Your task to perform on an android device: open sync settings in chrome Image 0: 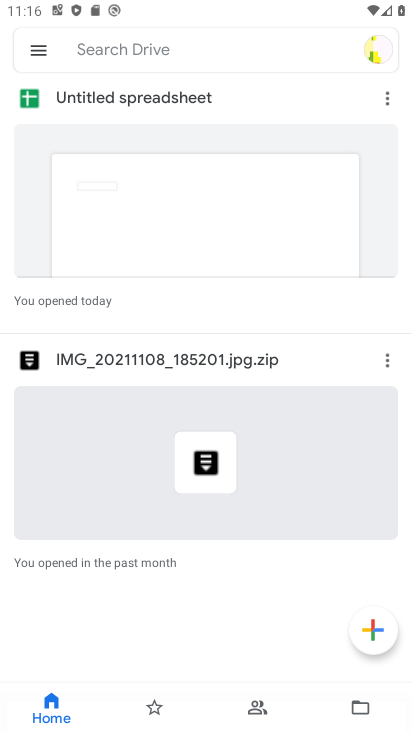
Step 0: press home button
Your task to perform on an android device: open sync settings in chrome Image 1: 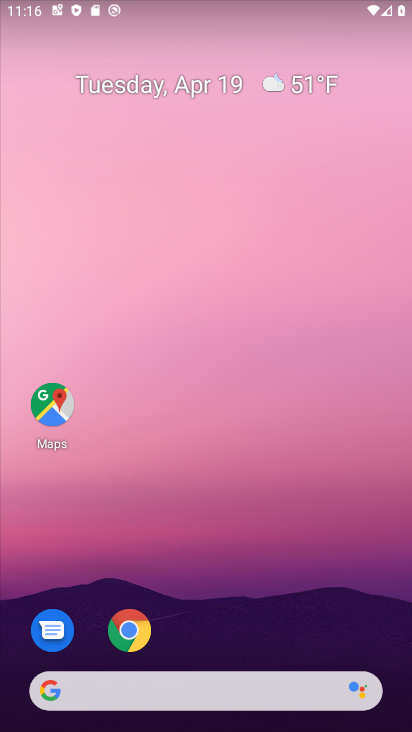
Step 1: click (123, 651)
Your task to perform on an android device: open sync settings in chrome Image 2: 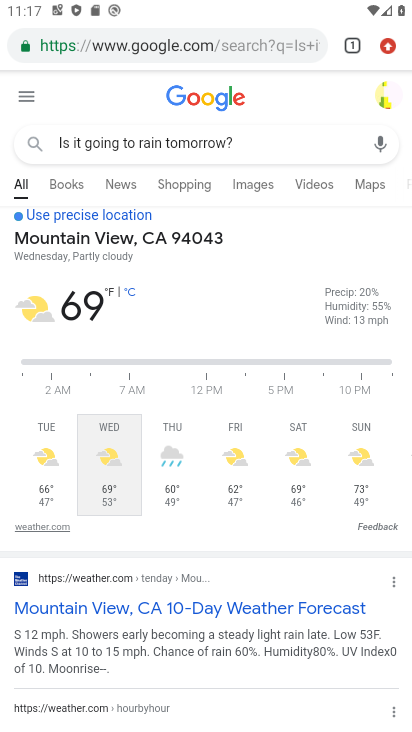
Step 2: click (385, 63)
Your task to perform on an android device: open sync settings in chrome Image 3: 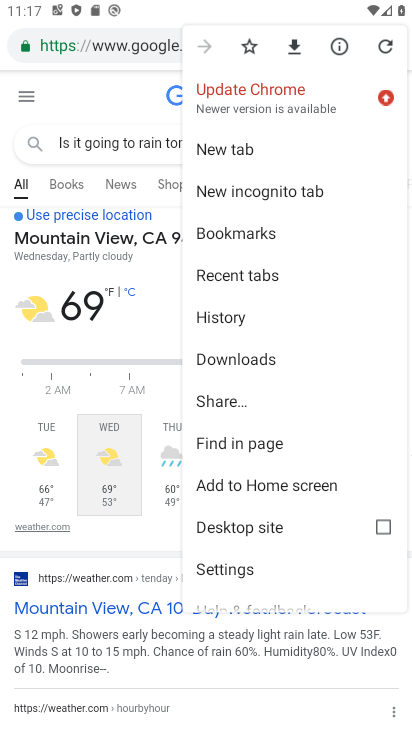
Step 3: click (286, 565)
Your task to perform on an android device: open sync settings in chrome Image 4: 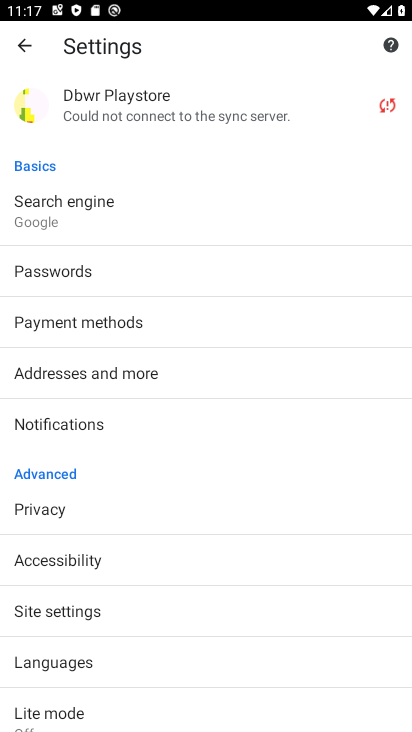
Step 4: click (244, 108)
Your task to perform on an android device: open sync settings in chrome Image 5: 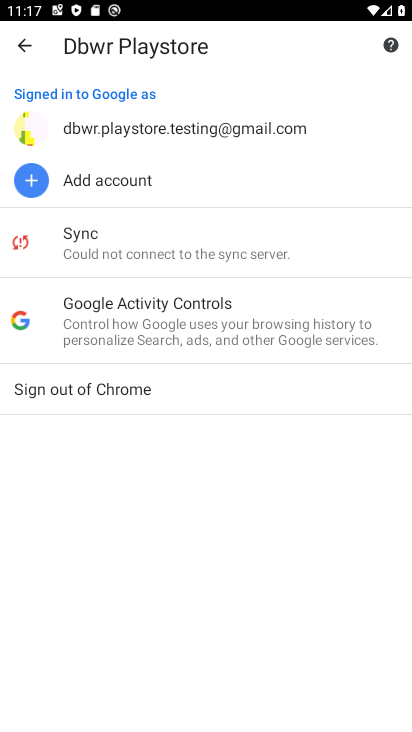
Step 5: click (243, 238)
Your task to perform on an android device: open sync settings in chrome Image 6: 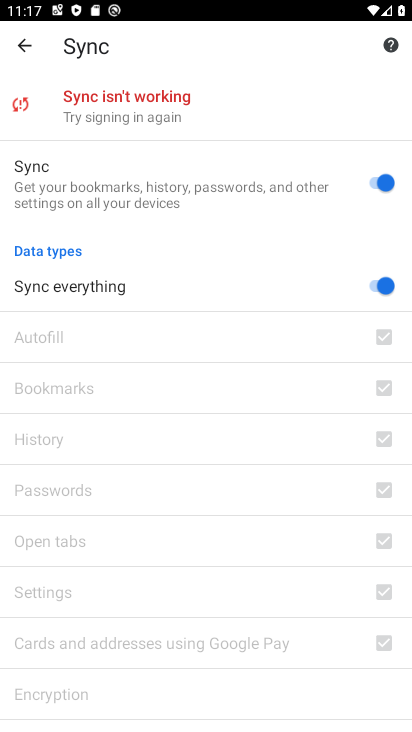
Step 6: task complete